Your task to perform on an android device: Go to Reddit.com Image 0: 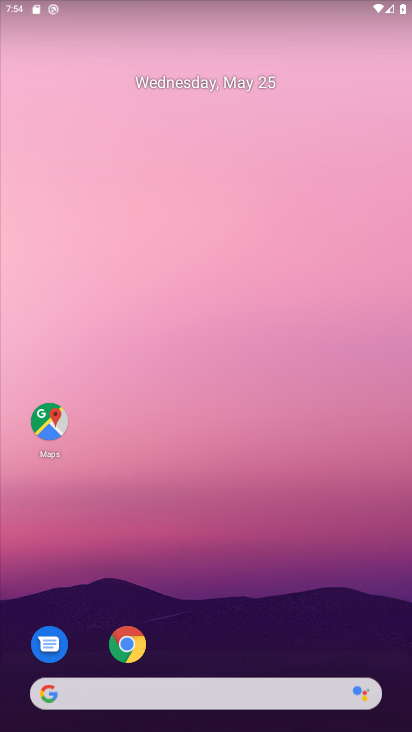
Step 0: click (121, 643)
Your task to perform on an android device: Go to Reddit.com Image 1: 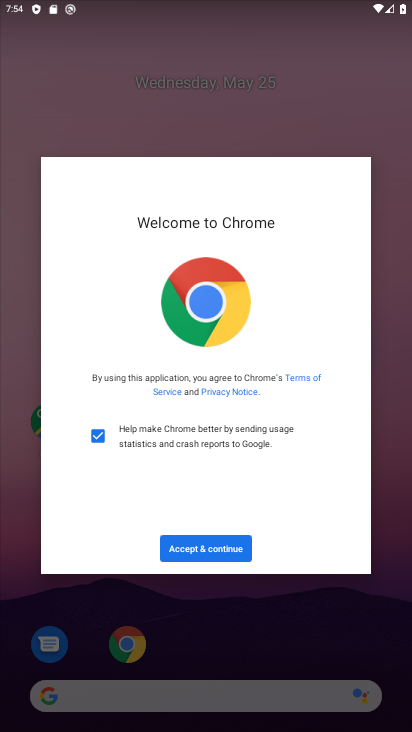
Step 1: click (212, 544)
Your task to perform on an android device: Go to Reddit.com Image 2: 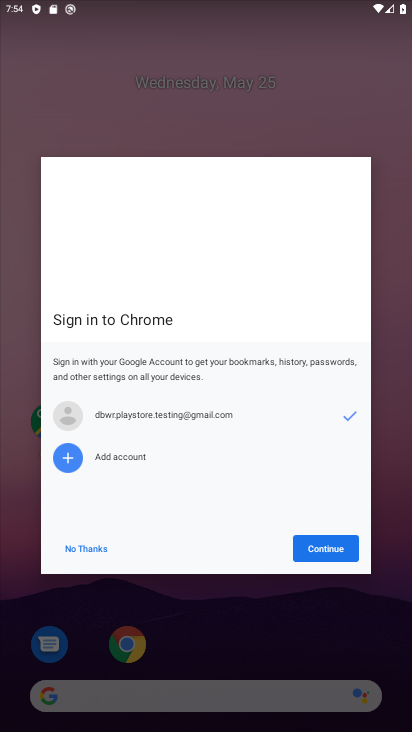
Step 2: click (212, 544)
Your task to perform on an android device: Go to Reddit.com Image 3: 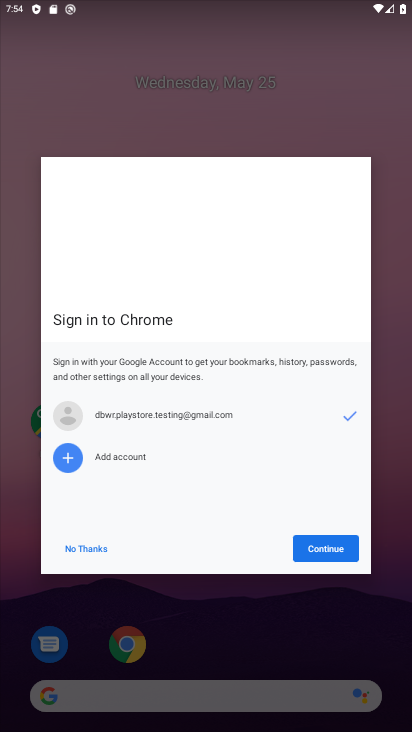
Step 3: click (350, 546)
Your task to perform on an android device: Go to Reddit.com Image 4: 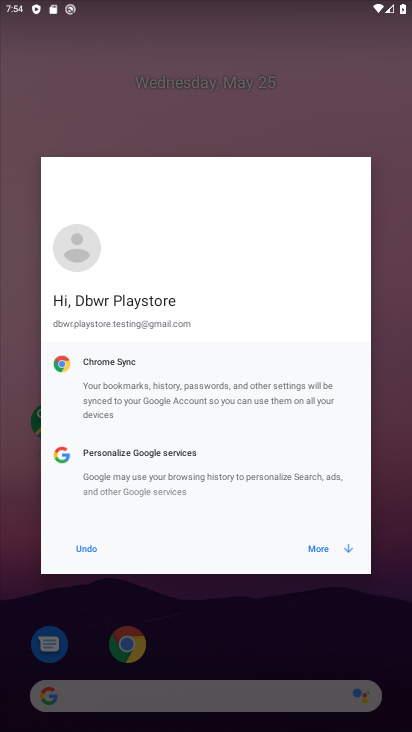
Step 4: click (350, 546)
Your task to perform on an android device: Go to Reddit.com Image 5: 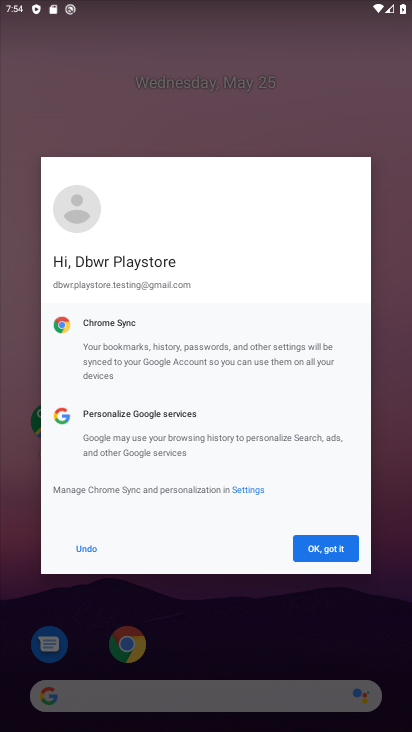
Step 5: click (346, 549)
Your task to perform on an android device: Go to Reddit.com Image 6: 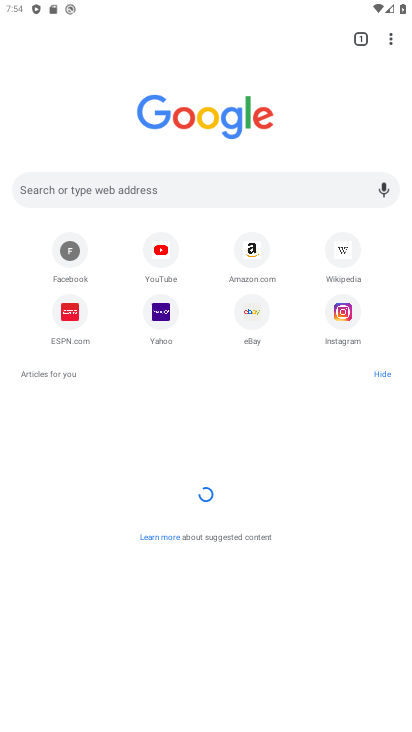
Step 6: click (182, 192)
Your task to perform on an android device: Go to Reddit.com Image 7: 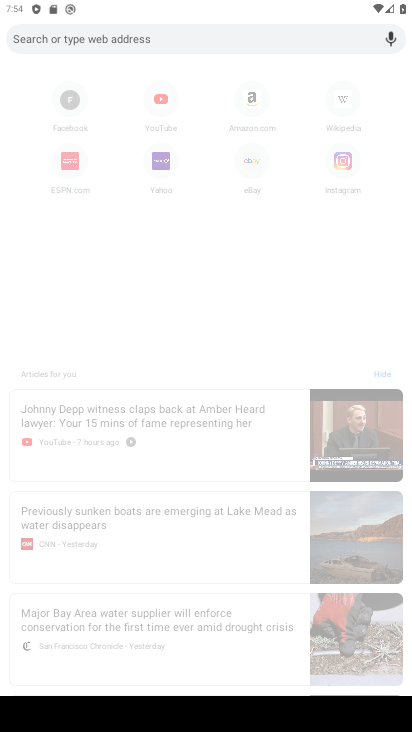
Step 7: type "Reddit.com"
Your task to perform on an android device: Go to Reddit.com Image 8: 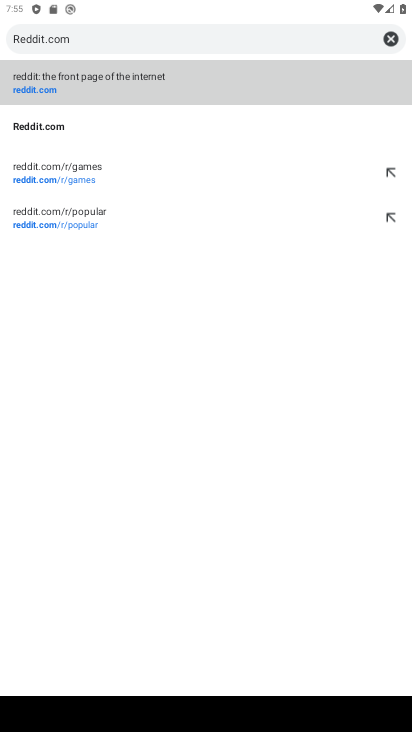
Step 8: click (69, 123)
Your task to perform on an android device: Go to Reddit.com Image 9: 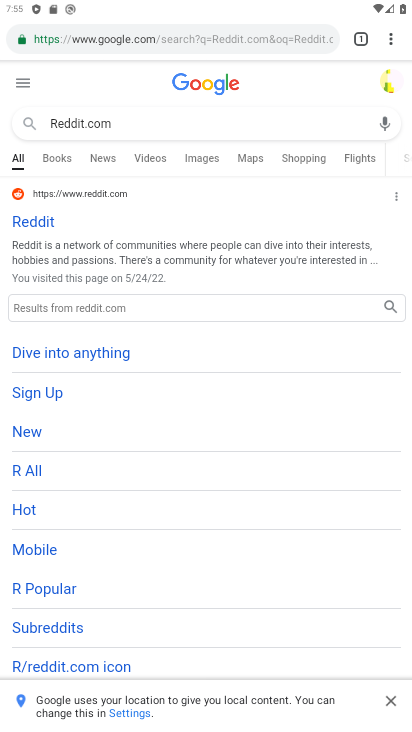
Step 9: task complete